Your task to perform on an android device: Open battery settings Image 0: 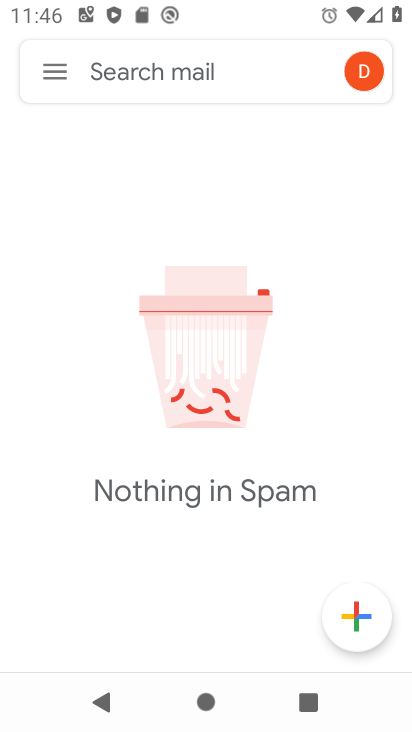
Step 0: drag from (255, 7) to (332, 488)
Your task to perform on an android device: Open battery settings Image 1: 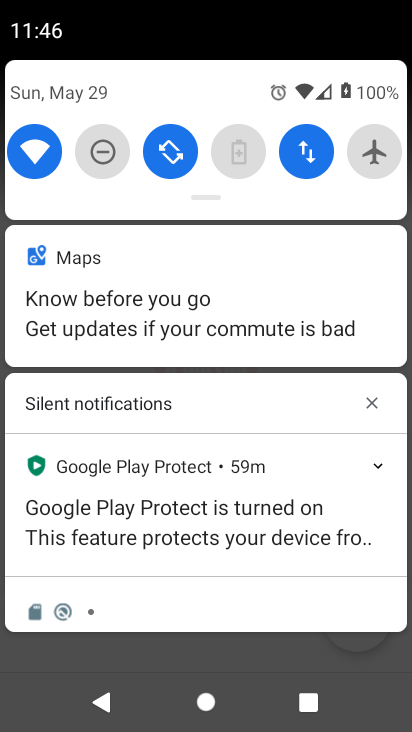
Step 1: click (251, 162)
Your task to perform on an android device: Open battery settings Image 2: 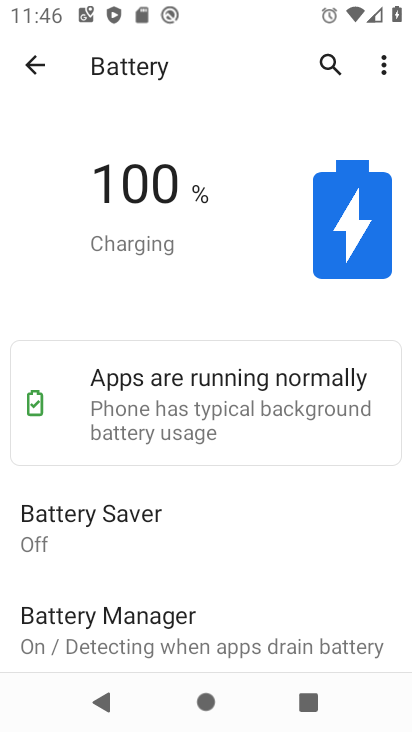
Step 2: task complete